Your task to perform on an android device: open chrome privacy settings Image 0: 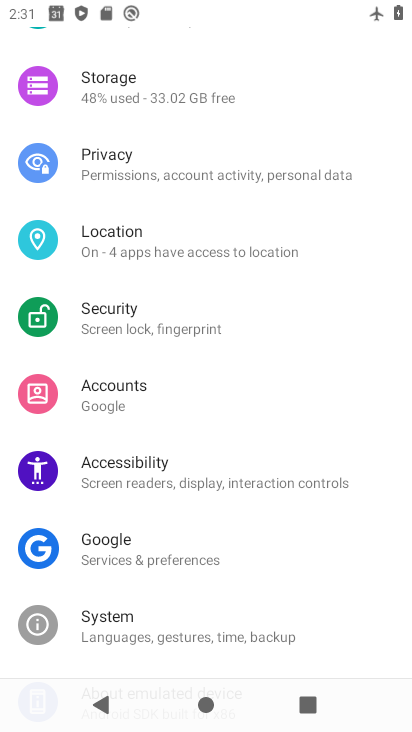
Step 0: press home button
Your task to perform on an android device: open chrome privacy settings Image 1: 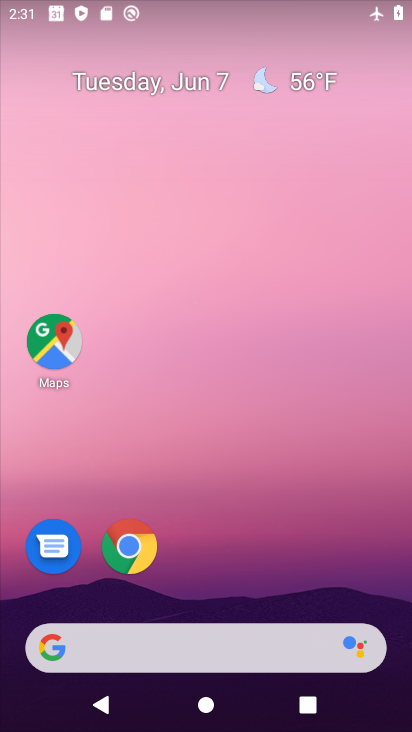
Step 1: click (145, 554)
Your task to perform on an android device: open chrome privacy settings Image 2: 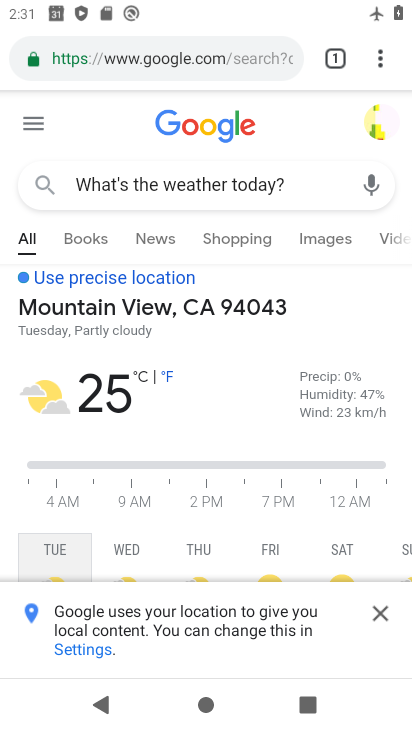
Step 2: drag from (376, 50) to (181, 575)
Your task to perform on an android device: open chrome privacy settings Image 3: 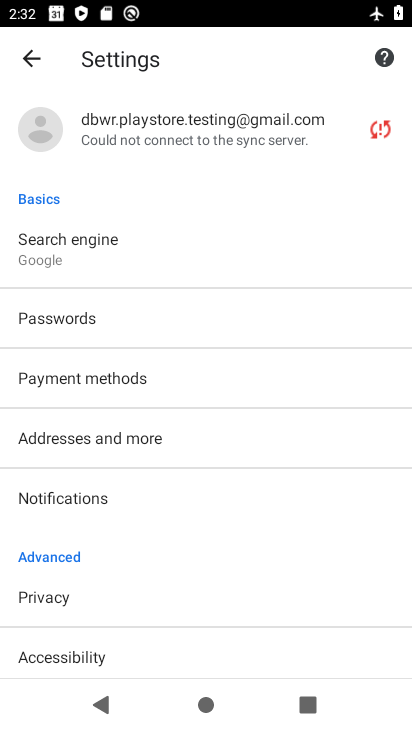
Step 3: click (61, 591)
Your task to perform on an android device: open chrome privacy settings Image 4: 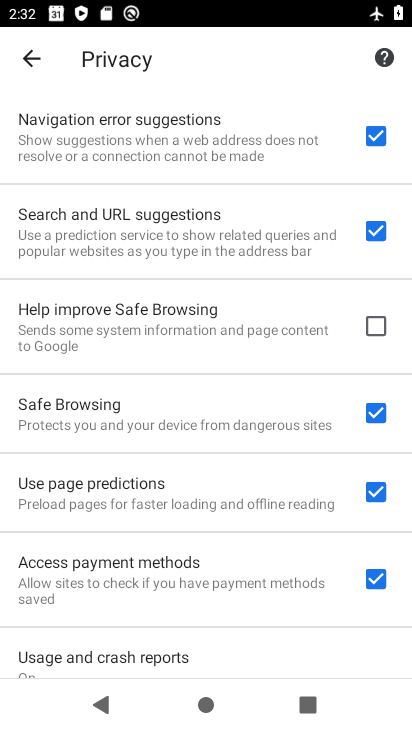
Step 4: task complete